Your task to perform on an android device: toggle wifi Image 0: 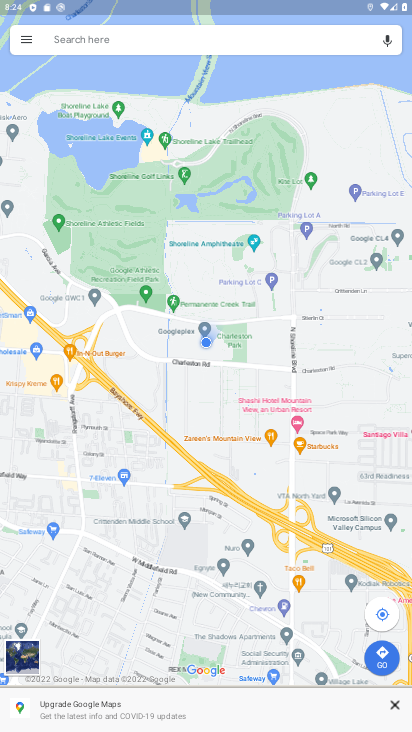
Step 0: press home button
Your task to perform on an android device: toggle wifi Image 1: 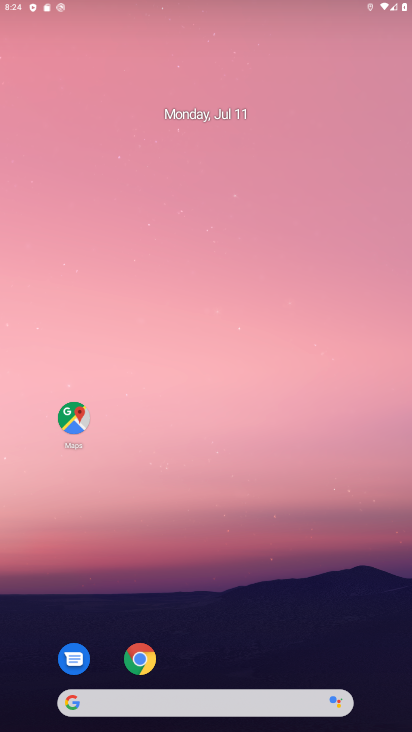
Step 1: drag from (210, 533) to (392, 196)
Your task to perform on an android device: toggle wifi Image 2: 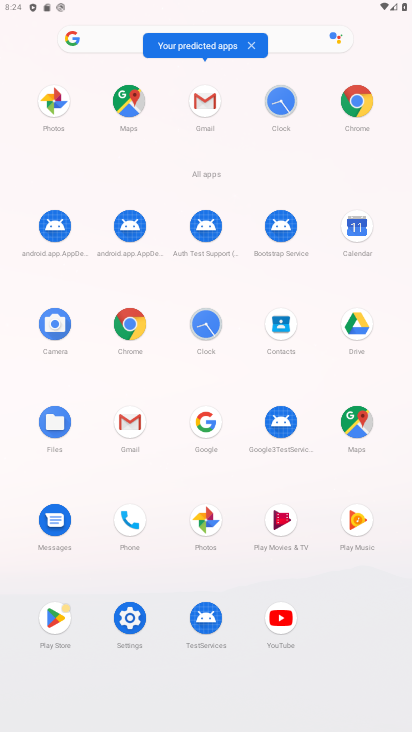
Step 2: click (123, 627)
Your task to perform on an android device: toggle wifi Image 3: 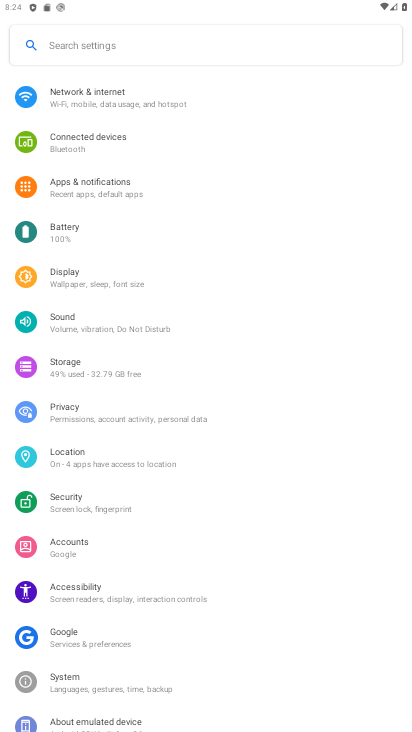
Step 3: click (125, 184)
Your task to perform on an android device: toggle wifi Image 4: 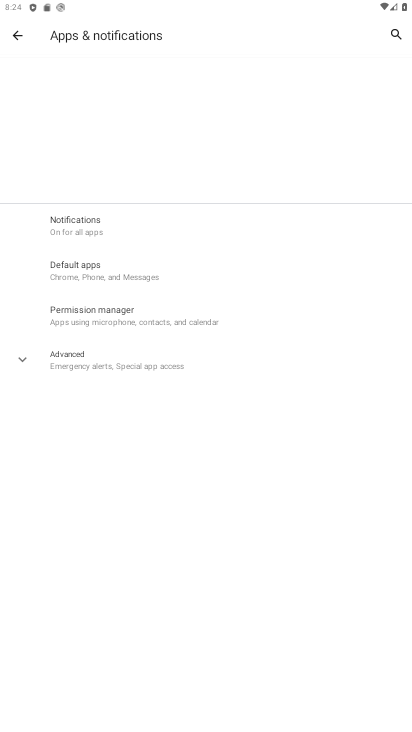
Step 4: click (20, 27)
Your task to perform on an android device: toggle wifi Image 5: 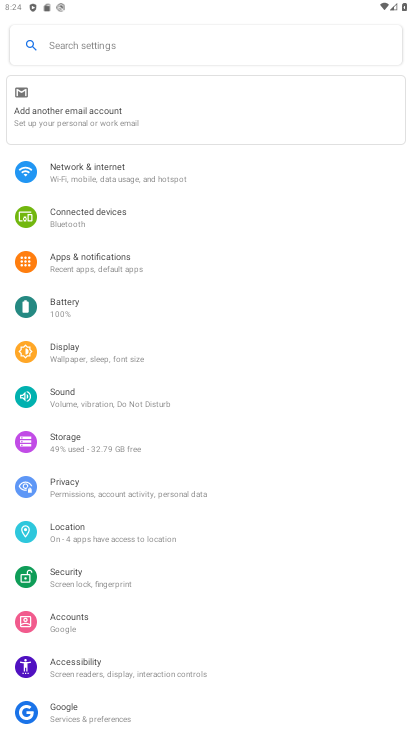
Step 5: click (129, 177)
Your task to perform on an android device: toggle wifi Image 6: 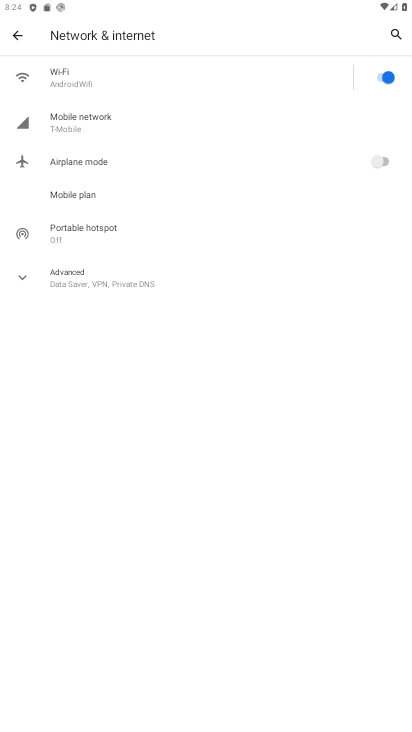
Step 6: click (378, 79)
Your task to perform on an android device: toggle wifi Image 7: 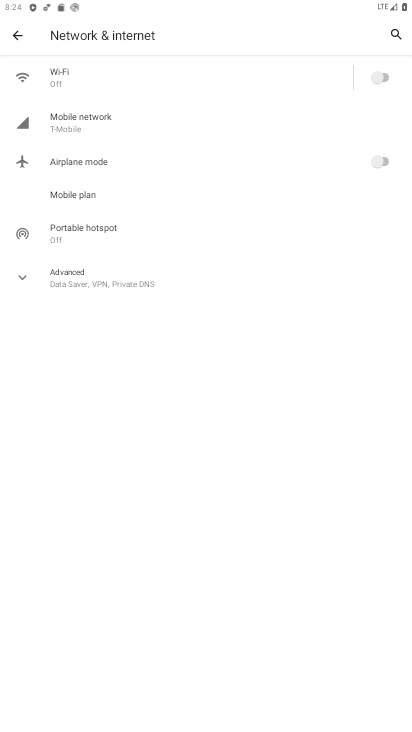
Step 7: task complete